Your task to perform on an android device: Open sound settings Image 0: 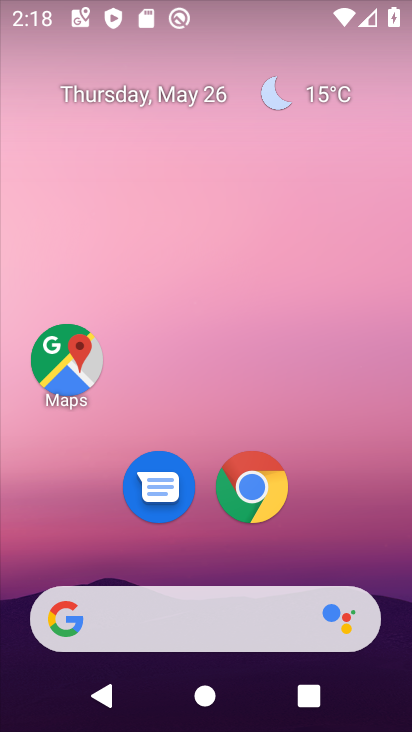
Step 0: drag from (238, 558) to (238, 242)
Your task to perform on an android device: Open sound settings Image 1: 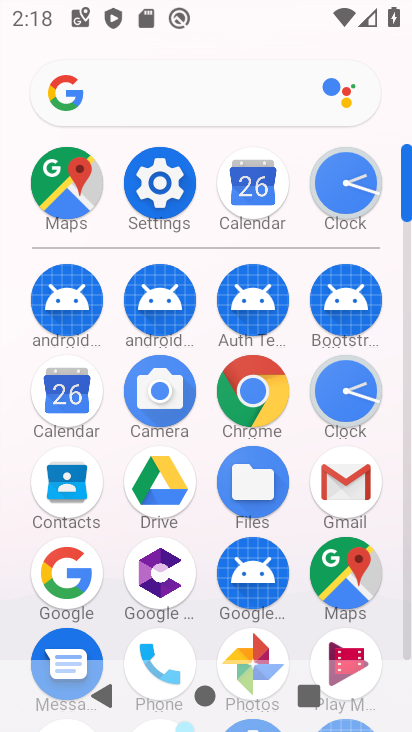
Step 1: click (191, 178)
Your task to perform on an android device: Open sound settings Image 2: 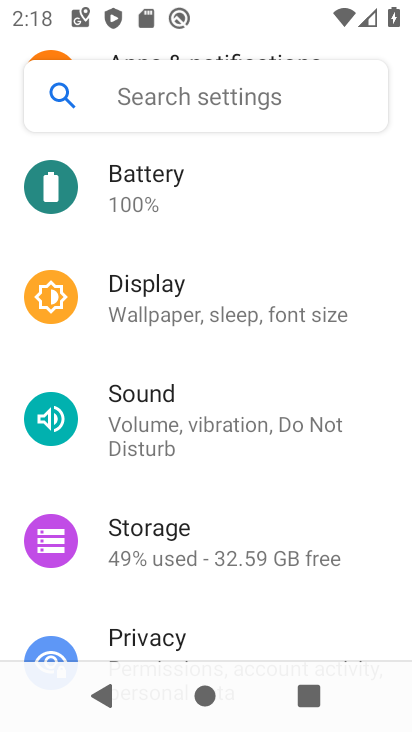
Step 2: click (187, 400)
Your task to perform on an android device: Open sound settings Image 3: 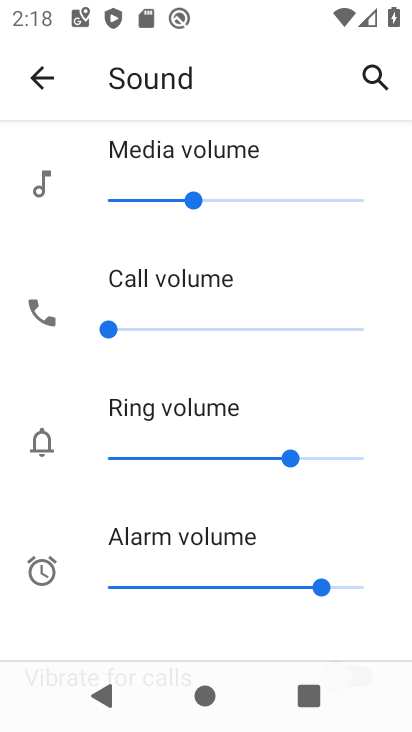
Step 3: task complete